Your task to perform on an android device: toggle priority inbox in the gmail app Image 0: 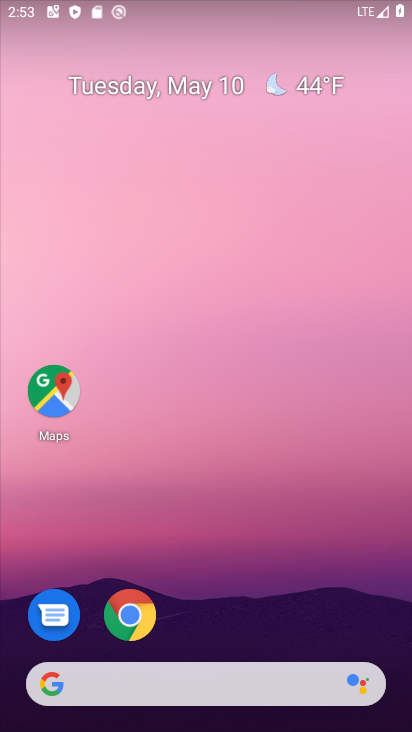
Step 0: drag from (277, 638) to (250, 85)
Your task to perform on an android device: toggle priority inbox in the gmail app Image 1: 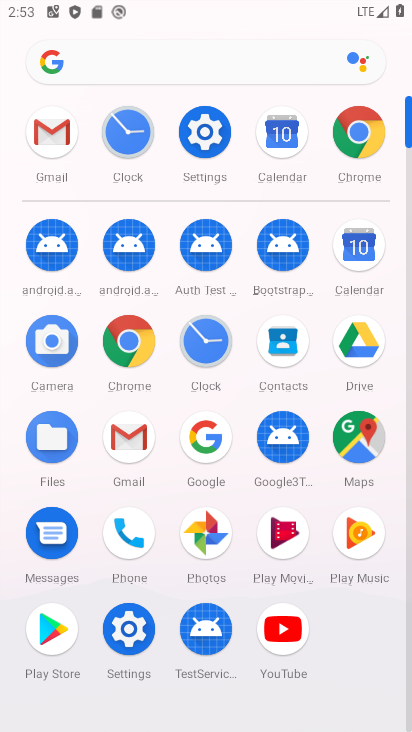
Step 1: click (32, 124)
Your task to perform on an android device: toggle priority inbox in the gmail app Image 2: 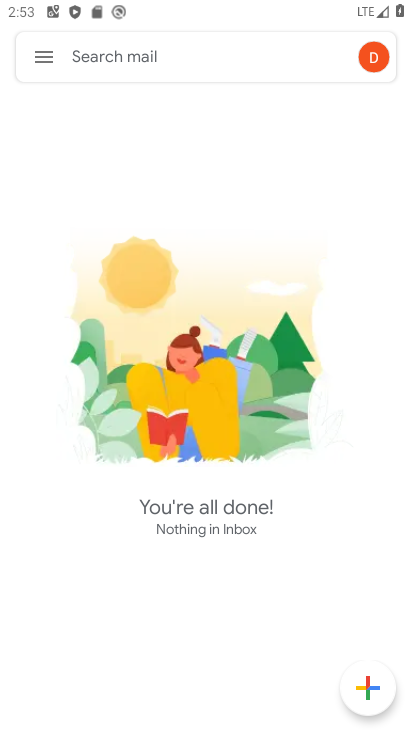
Step 2: click (44, 64)
Your task to perform on an android device: toggle priority inbox in the gmail app Image 3: 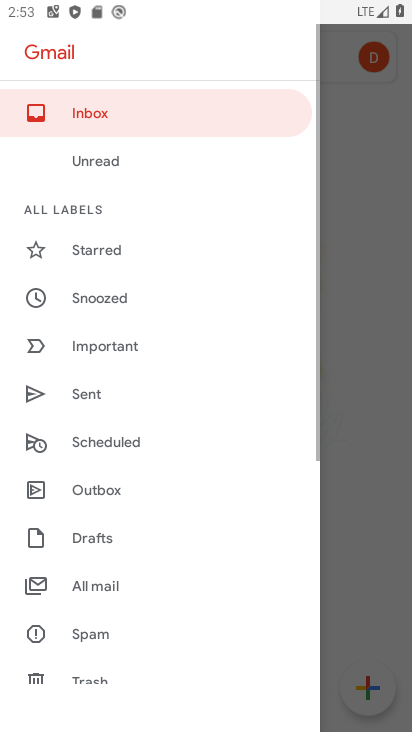
Step 3: drag from (122, 591) to (81, 147)
Your task to perform on an android device: toggle priority inbox in the gmail app Image 4: 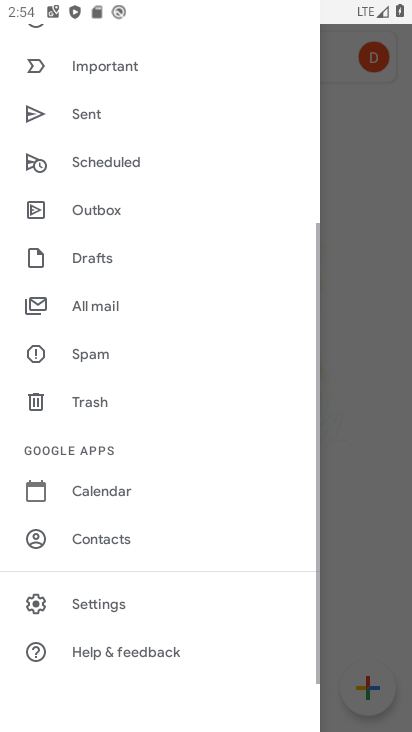
Step 4: click (81, 608)
Your task to perform on an android device: toggle priority inbox in the gmail app Image 5: 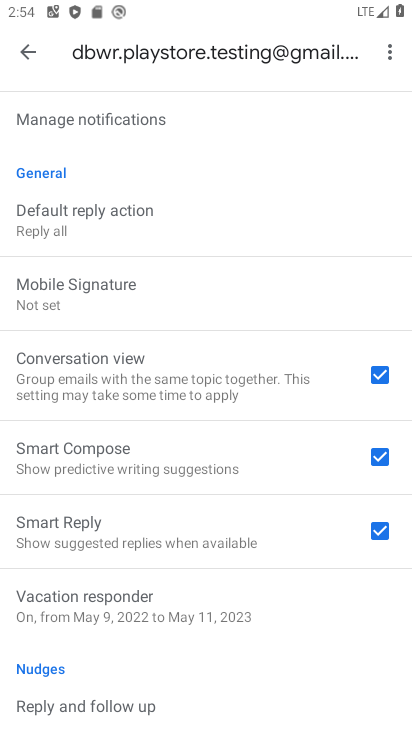
Step 5: drag from (268, 537) to (203, 255)
Your task to perform on an android device: toggle priority inbox in the gmail app Image 6: 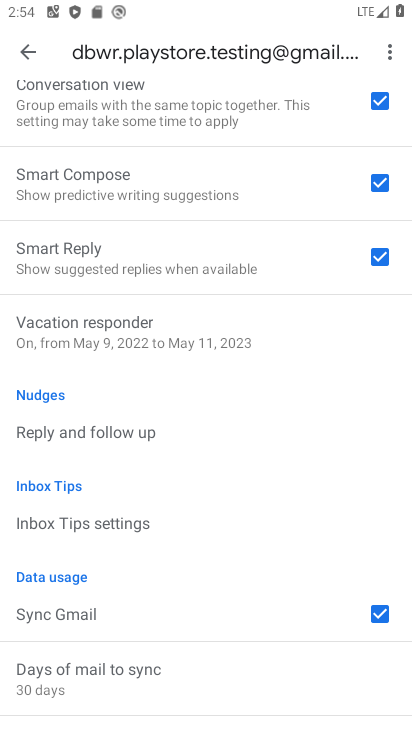
Step 6: drag from (227, 654) to (213, 428)
Your task to perform on an android device: toggle priority inbox in the gmail app Image 7: 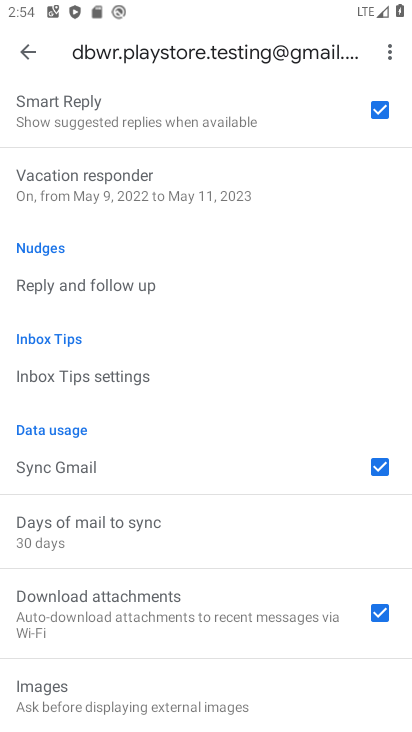
Step 7: drag from (104, 214) to (186, 720)
Your task to perform on an android device: toggle priority inbox in the gmail app Image 8: 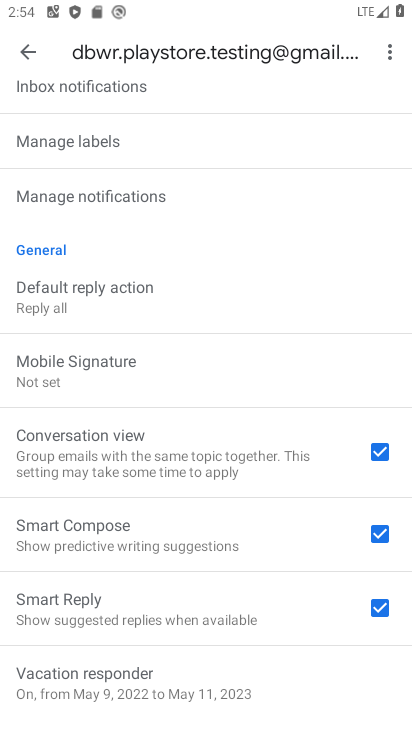
Step 8: drag from (199, 527) to (228, 642)
Your task to perform on an android device: toggle priority inbox in the gmail app Image 9: 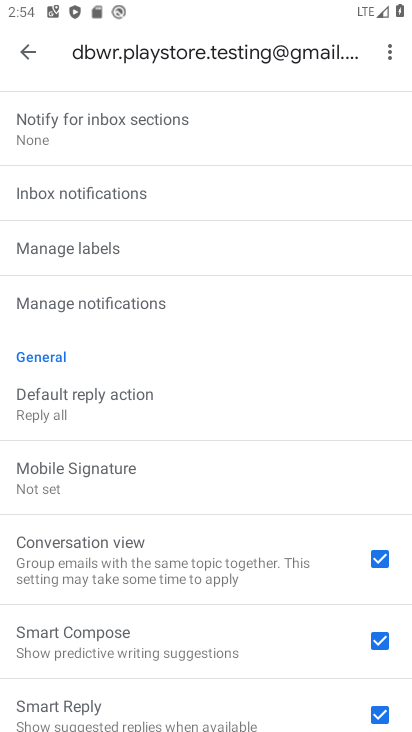
Step 9: drag from (119, 207) to (212, 607)
Your task to perform on an android device: toggle priority inbox in the gmail app Image 10: 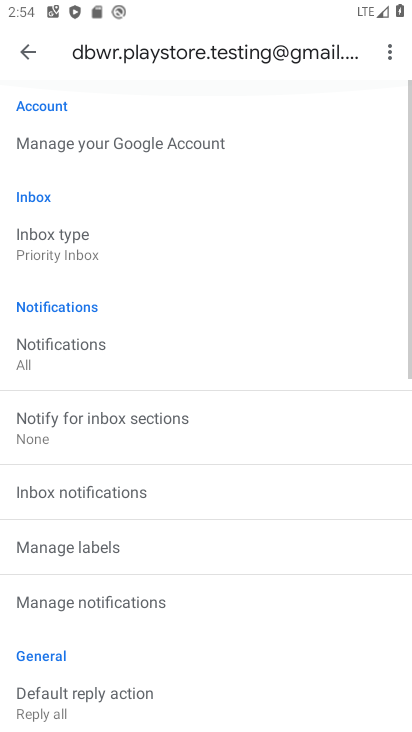
Step 10: drag from (113, 310) to (162, 724)
Your task to perform on an android device: toggle priority inbox in the gmail app Image 11: 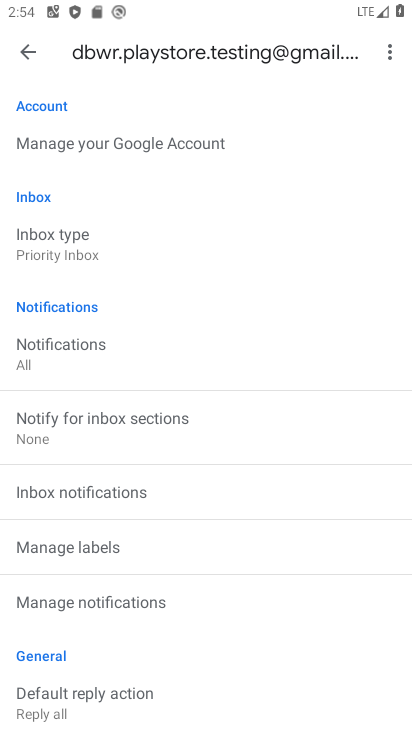
Step 11: click (71, 255)
Your task to perform on an android device: toggle priority inbox in the gmail app Image 12: 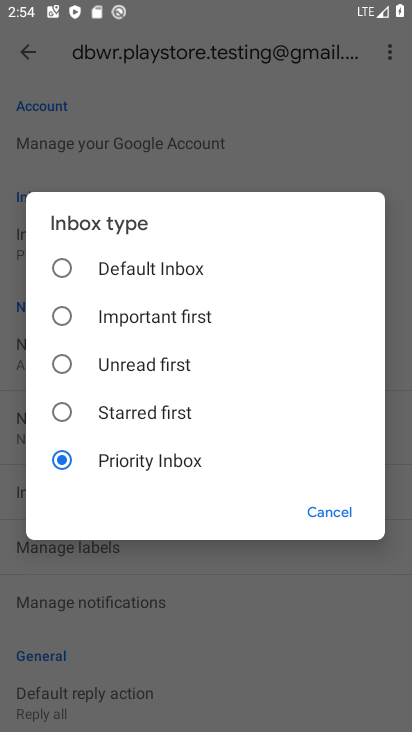
Step 12: click (85, 269)
Your task to perform on an android device: toggle priority inbox in the gmail app Image 13: 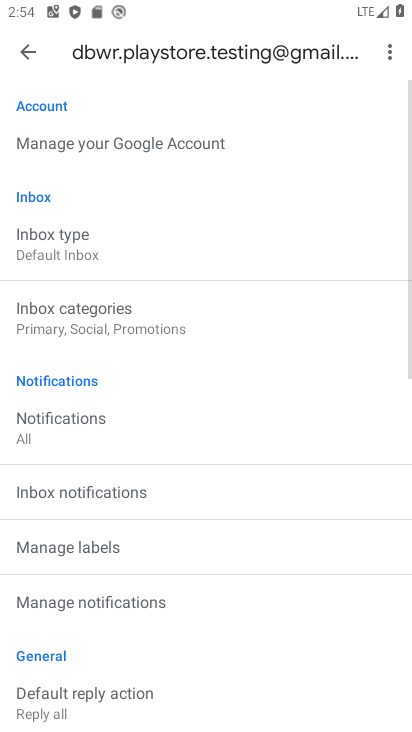
Step 13: task complete